Your task to perform on an android device: Check the news Image 0: 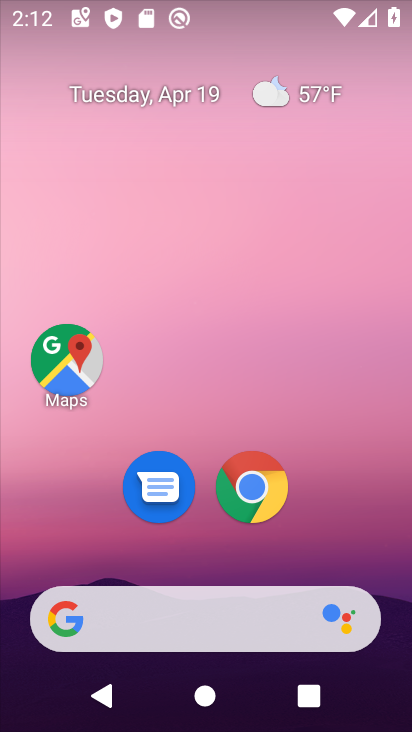
Step 0: click (234, 623)
Your task to perform on an android device: Check the news Image 1: 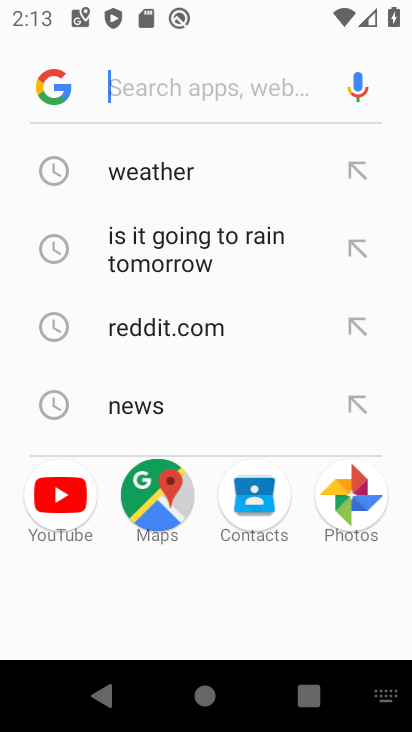
Step 1: click (69, 95)
Your task to perform on an android device: Check the news Image 2: 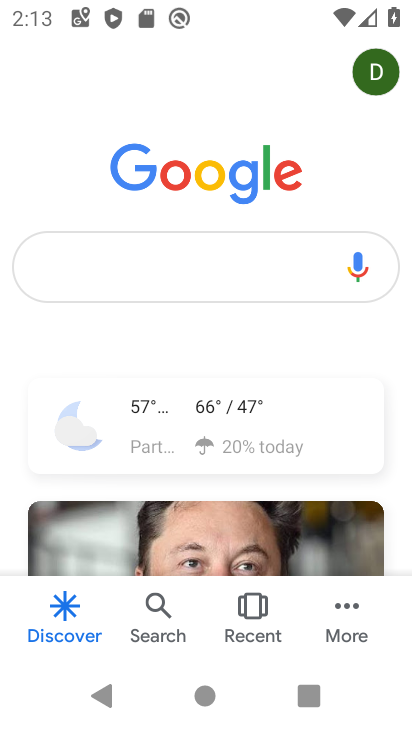
Step 2: task complete